Your task to perform on an android device: Go to wifi settings Image 0: 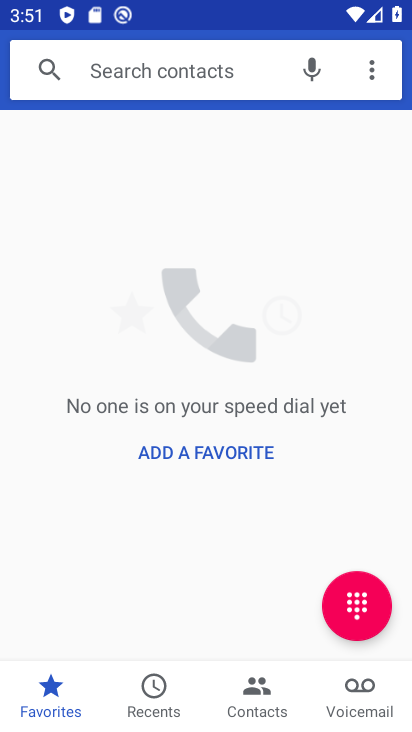
Step 0: press back button
Your task to perform on an android device: Go to wifi settings Image 1: 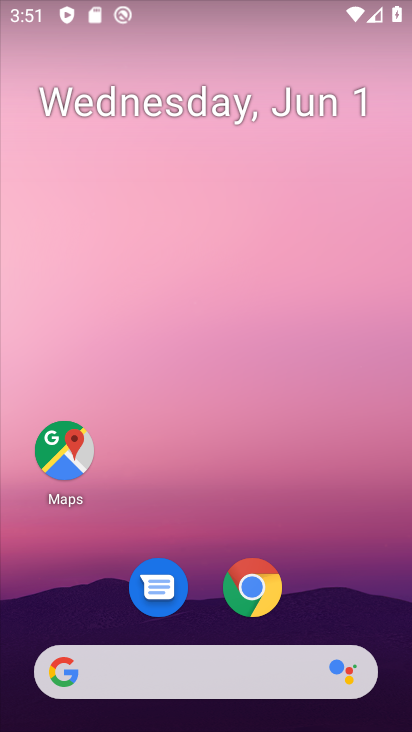
Step 1: drag from (328, 592) to (270, 227)
Your task to perform on an android device: Go to wifi settings Image 2: 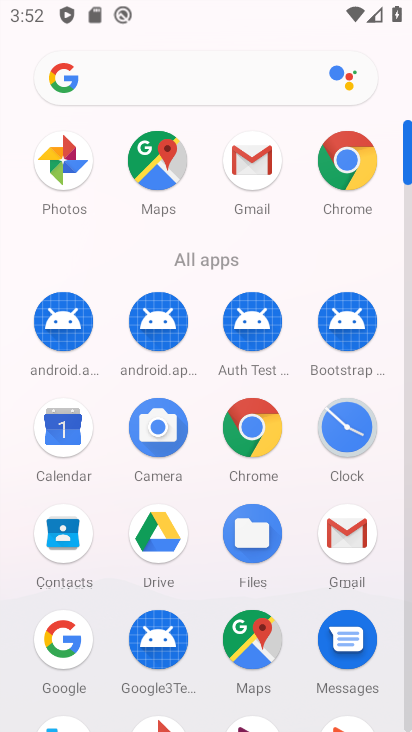
Step 2: drag from (205, 506) to (200, 338)
Your task to perform on an android device: Go to wifi settings Image 3: 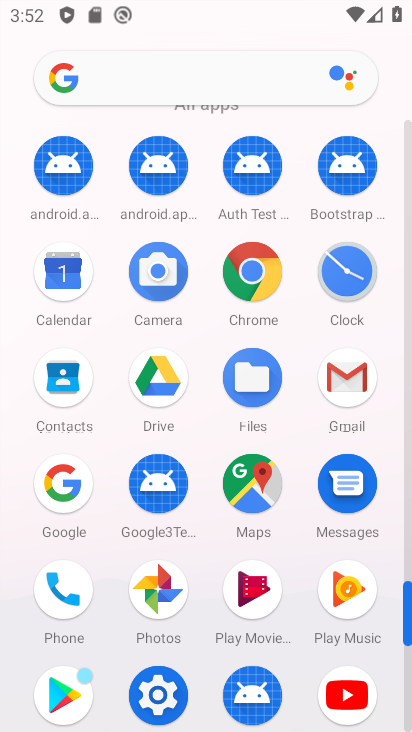
Step 3: drag from (195, 458) to (214, 348)
Your task to perform on an android device: Go to wifi settings Image 4: 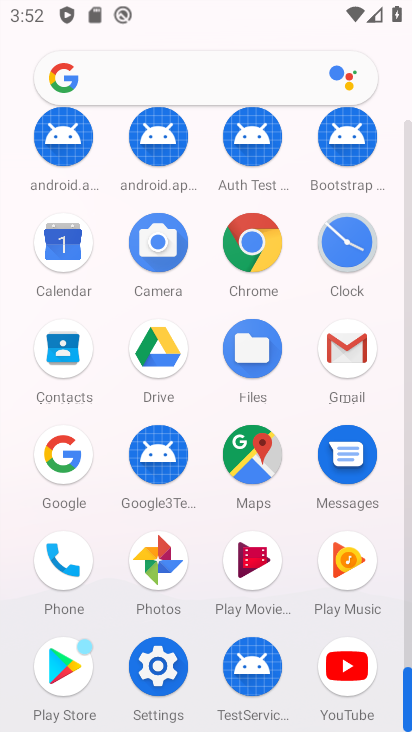
Step 4: click (159, 665)
Your task to perform on an android device: Go to wifi settings Image 5: 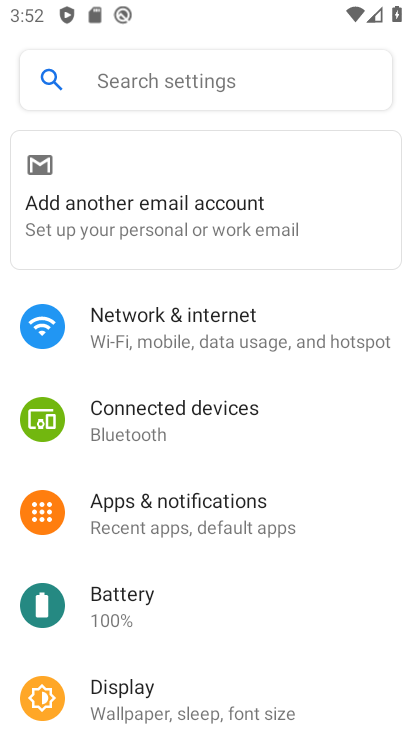
Step 5: click (146, 326)
Your task to perform on an android device: Go to wifi settings Image 6: 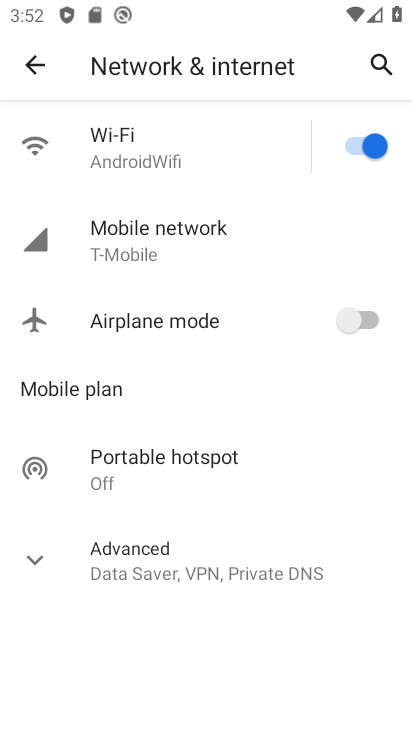
Step 6: click (127, 157)
Your task to perform on an android device: Go to wifi settings Image 7: 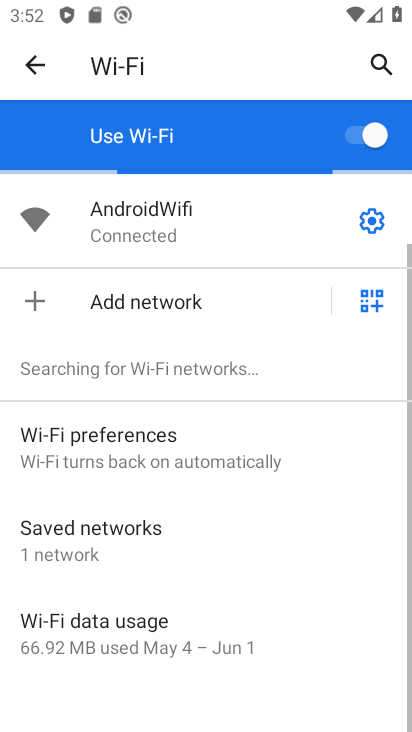
Step 7: click (376, 221)
Your task to perform on an android device: Go to wifi settings Image 8: 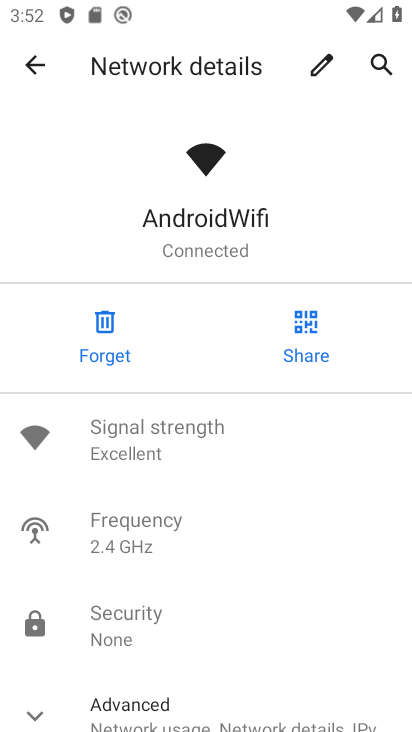
Step 8: task complete